Your task to perform on an android device: open device folders in google photos Image 0: 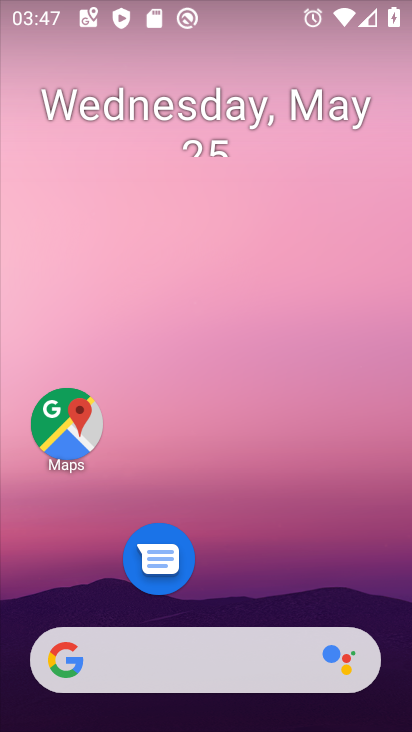
Step 0: press home button
Your task to perform on an android device: open device folders in google photos Image 1: 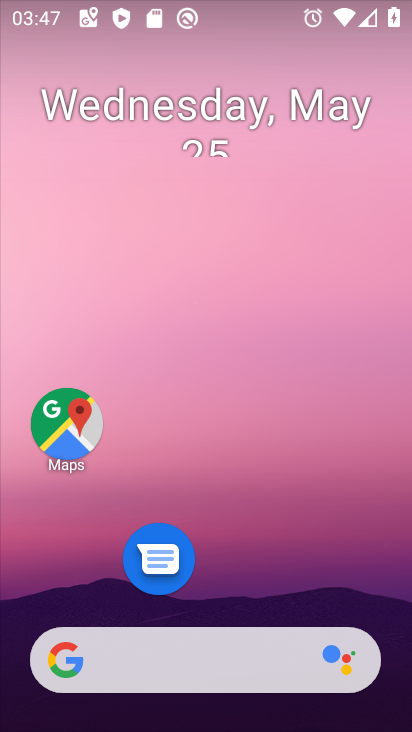
Step 1: drag from (228, 612) to (245, 60)
Your task to perform on an android device: open device folders in google photos Image 2: 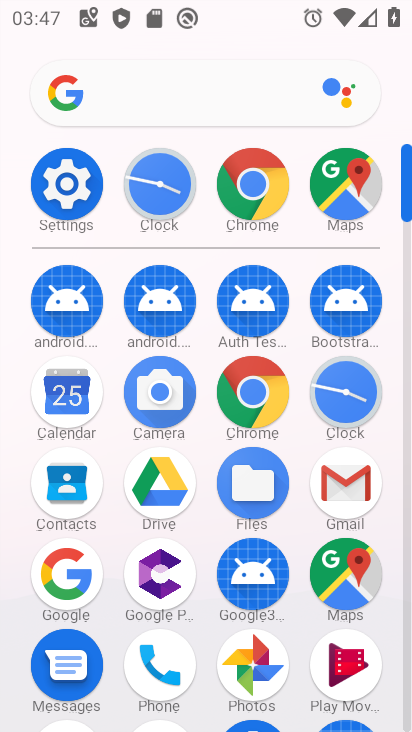
Step 2: click (252, 657)
Your task to perform on an android device: open device folders in google photos Image 3: 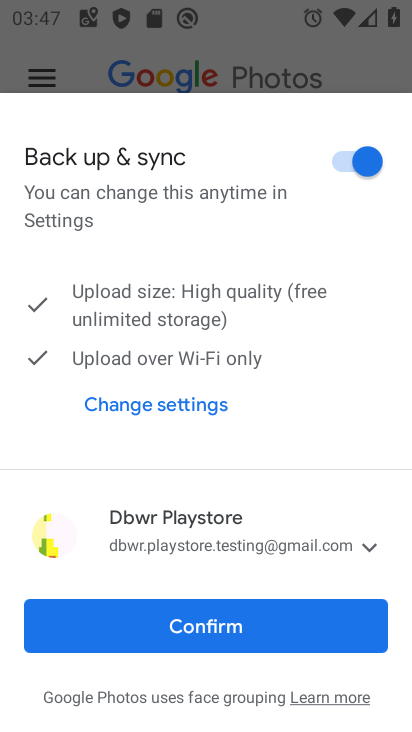
Step 3: click (198, 622)
Your task to perform on an android device: open device folders in google photos Image 4: 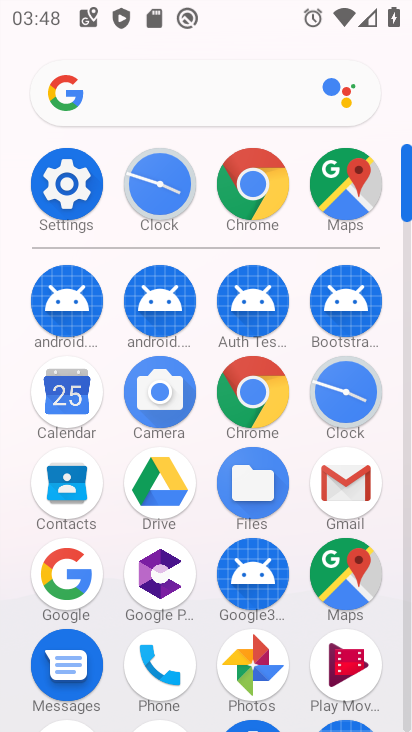
Step 4: click (248, 659)
Your task to perform on an android device: open device folders in google photos Image 5: 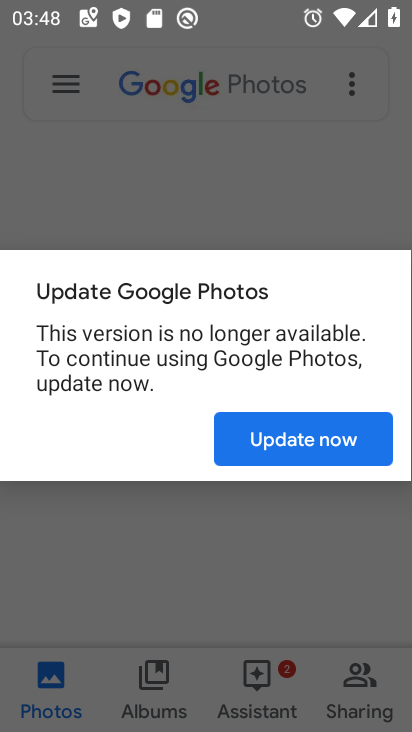
Step 5: click (311, 438)
Your task to perform on an android device: open device folders in google photos Image 6: 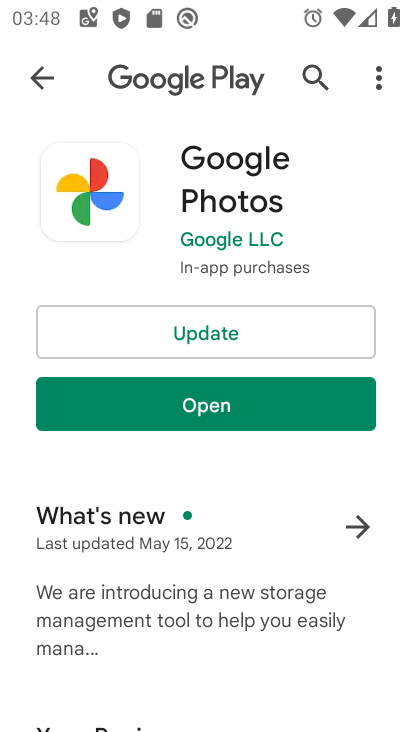
Step 6: click (212, 330)
Your task to perform on an android device: open device folders in google photos Image 7: 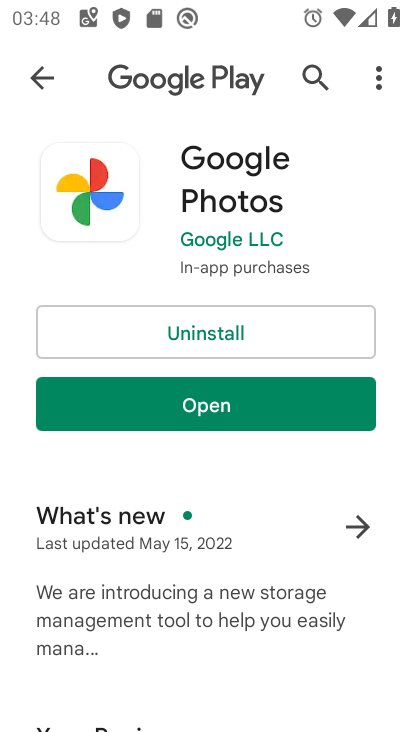
Step 7: click (213, 407)
Your task to perform on an android device: open device folders in google photos Image 8: 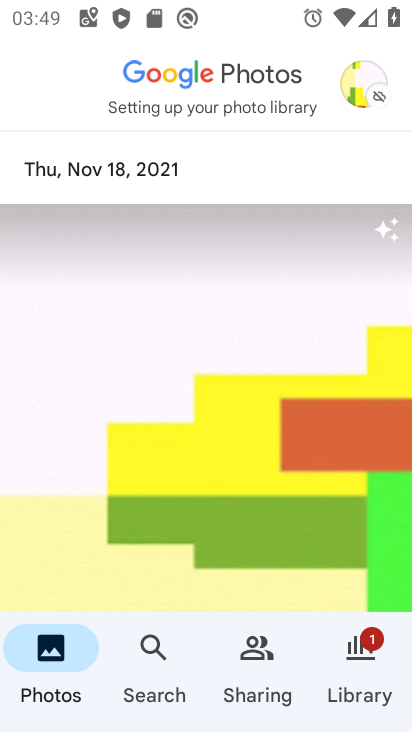
Step 8: drag from (202, 594) to (224, 118)
Your task to perform on an android device: open device folders in google photos Image 9: 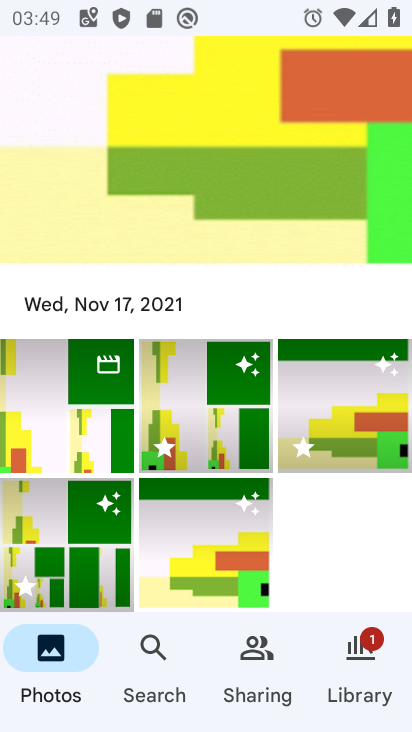
Step 9: drag from (280, 562) to (282, 337)
Your task to perform on an android device: open device folders in google photos Image 10: 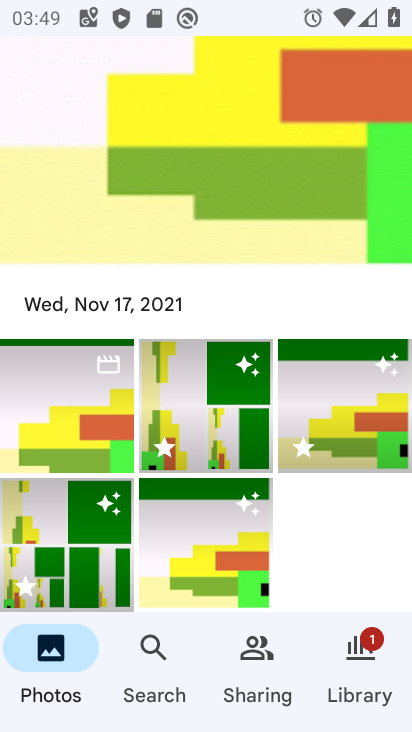
Step 10: drag from (314, 565) to (328, 135)
Your task to perform on an android device: open device folders in google photos Image 11: 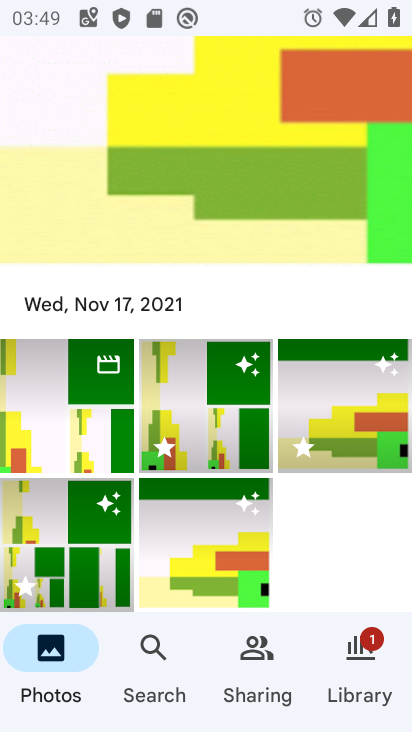
Step 11: drag from (308, 562) to (308, 171)
Your task to perform on an android device: open device folders in google photos Image 12: 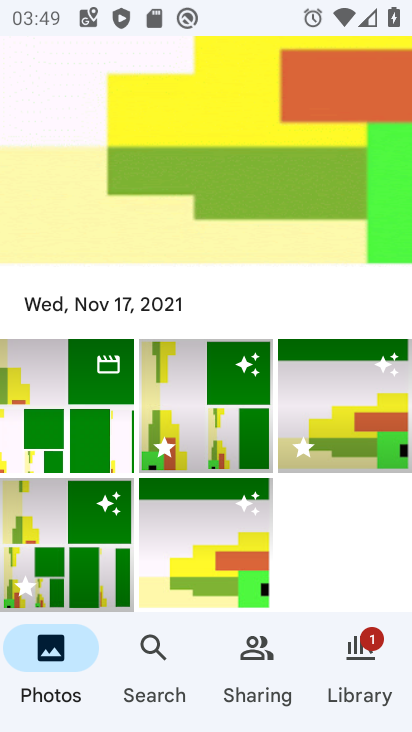
Step 12: drag from (118, 135) to (162, 565)
Your task to perform on an android device: open device folders in google photos Image 13: 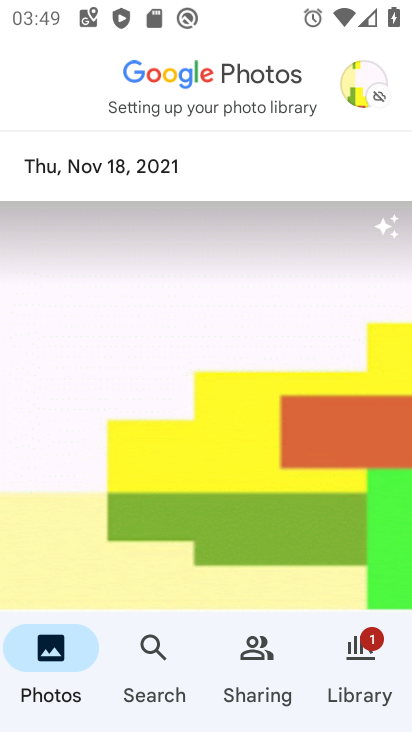
Step 13: drag from (182, 173) to (222, 576)
Your task to perform on an android device: open device folders in google photos Image 14: 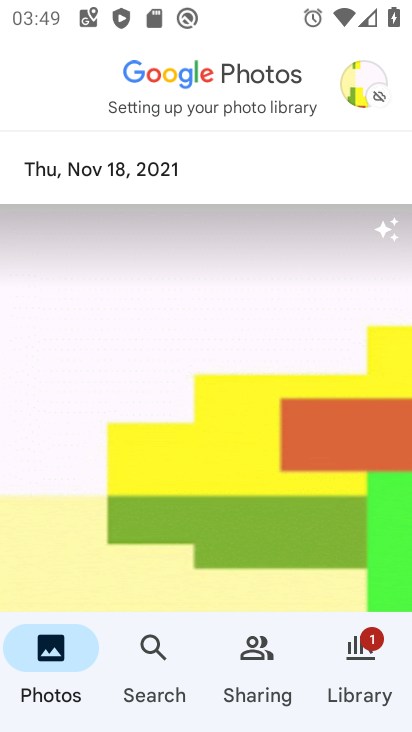
Step 14: click (156, 662)
Your task to perform on an android device: open device folders in google photos Image 15: 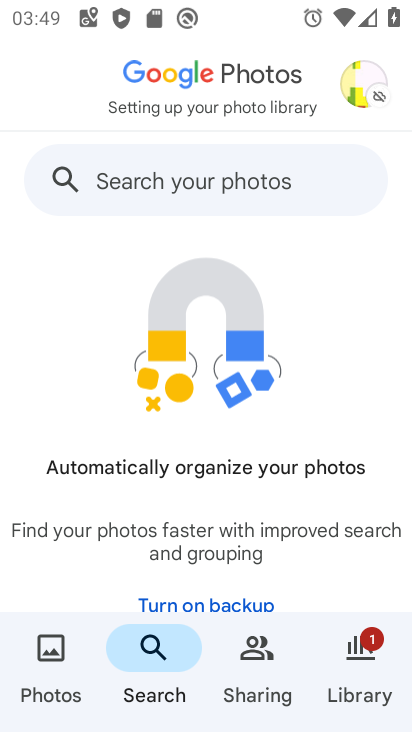
Step 15: click (133, 172)
Your task to perform on an android device: open device folders in google photos Image 16: 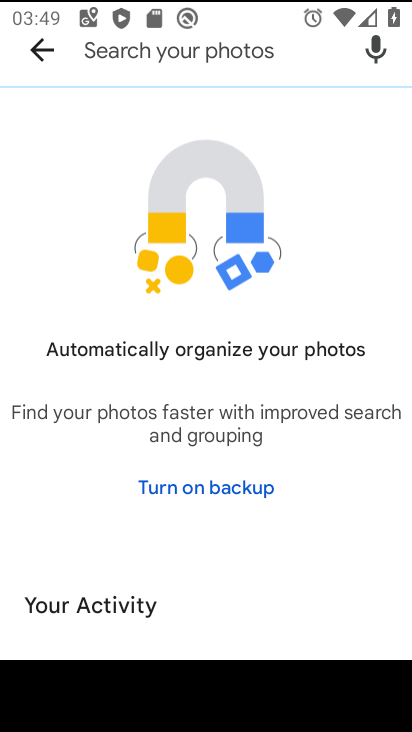
Step 16: type "device"
Your task to perform on an android device: open device folders in google photos Image 17: 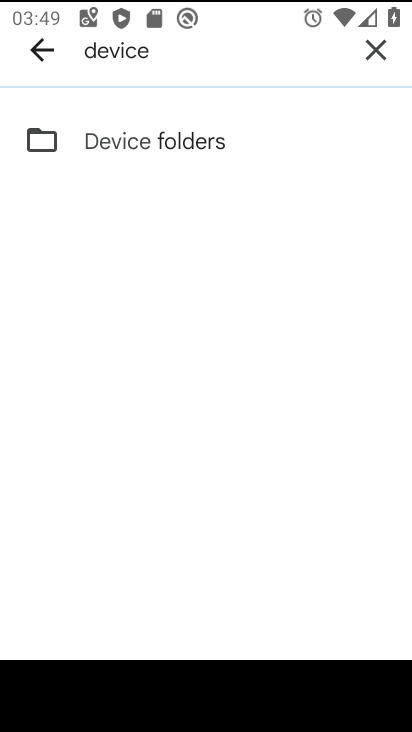
Step 17: click (153, 143)
Your task to perform on an android device: open device folders in google photos Image 18: 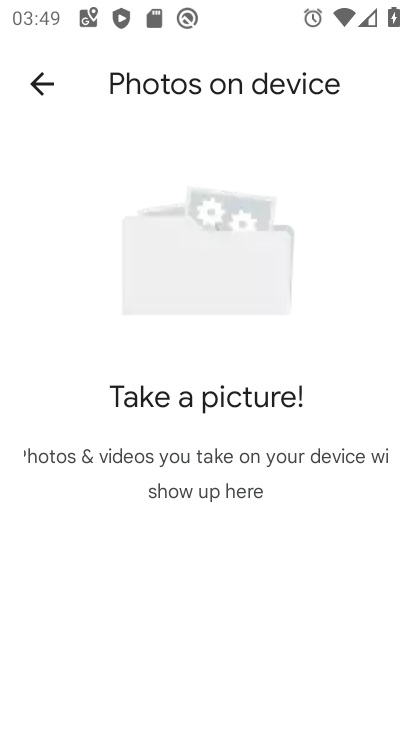
Step 18: task complete